Your task to perform on an android device: Open calendar and show me the second week of next month Image 0: 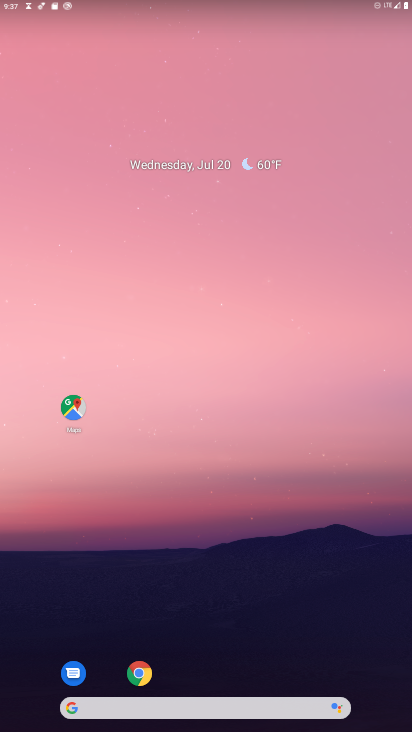
Step 0: drag from (170, 572) to (172, 295)
Your task to perform on an android device: Open calendar and show me the second week of next month Image 1: 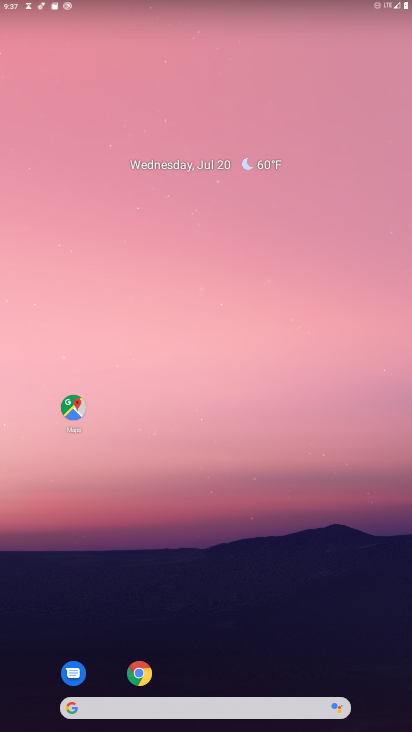
Step 1: drag from (181, 393) to (179, 113)
Your task to perform on an android device: Open calendar and show me the second week of next month Image 2: 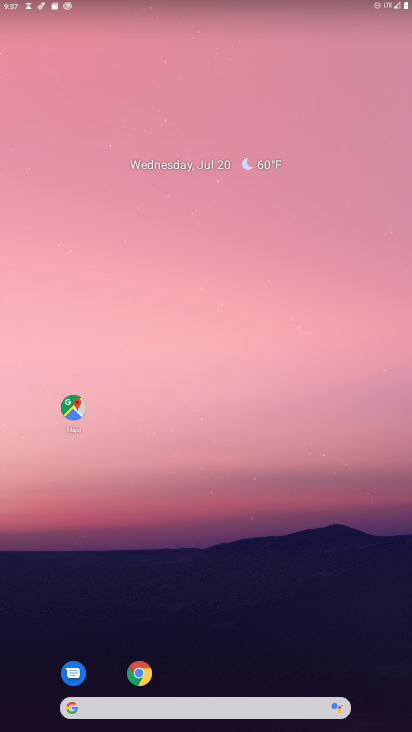
Step 2: drag from (214, 507) to (167, 5)
Your task to perform on an android device: Open calendar and show me the second week of next month Image 3: 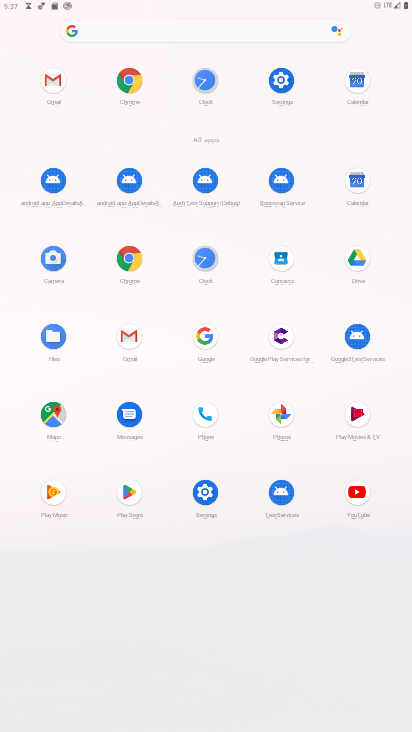
Step 3: click (360, 195)
Your task to perform on an android device: Open calendar and show me the second week of next month Image 4: 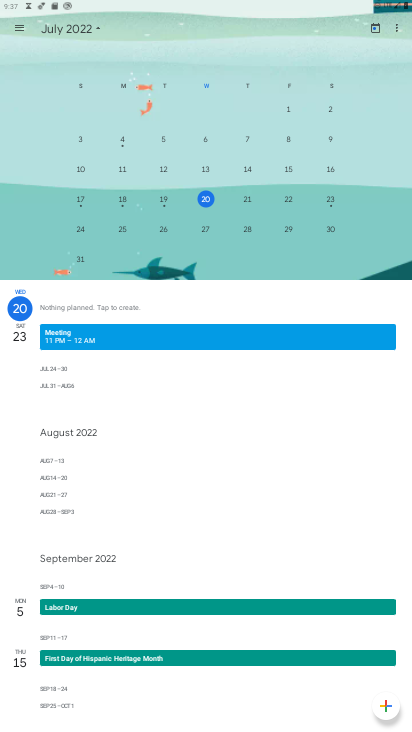
Step 4: click (78, 33)
Your task to perform on an android device: Open calendar and show me the second week of next month Image 5: 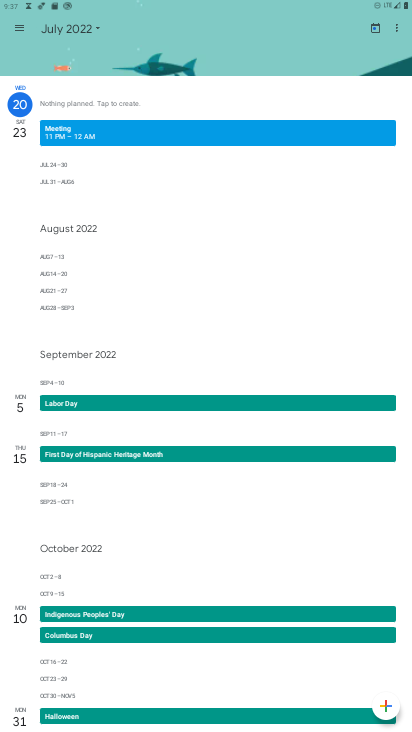
Step 5: click (74, 28)
Your task to perform on an android device: Open calendar and show me the second week of next month Image 6: 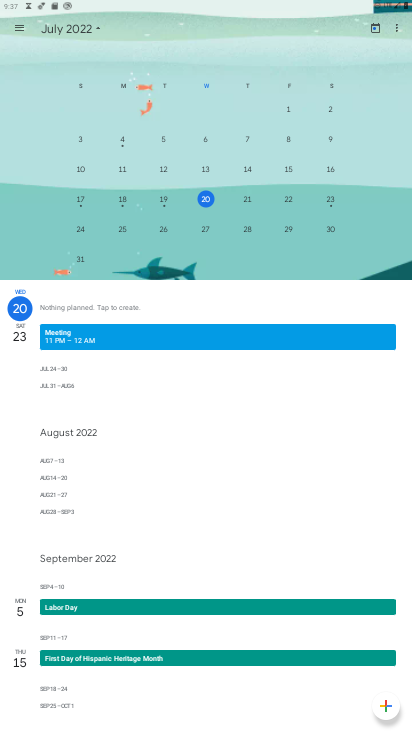
Step 6: drag from (163, 172) to (11, 177)
Your task to perform on an android device: Open calendar and show me the second week of next month Image 7: 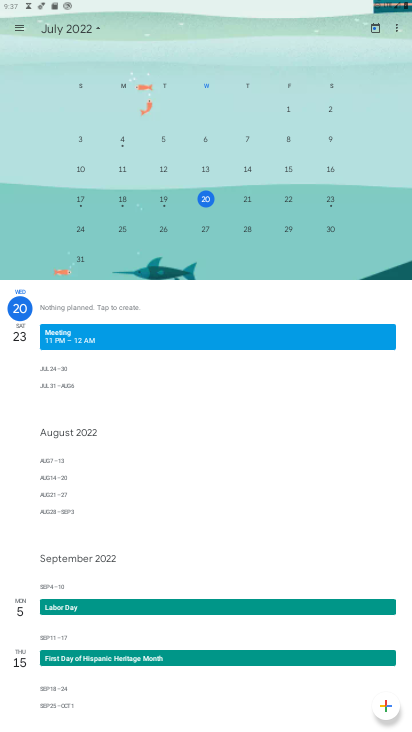
Step 7: drag from (296, 173) to (30, 142)
Your task to perform on an android device: Open calendar and show me the second week of next month Image 8: 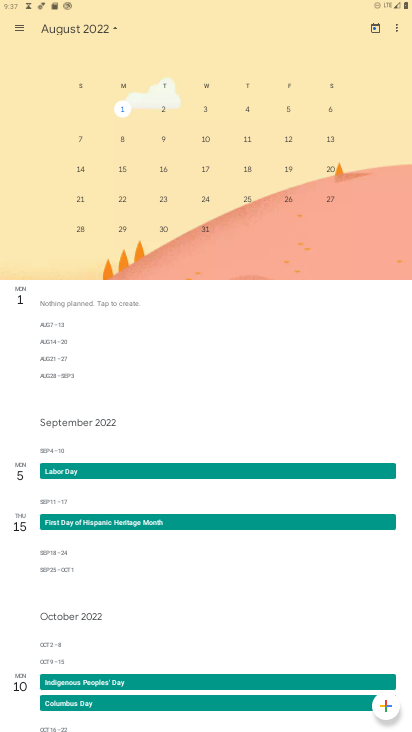
Step 8: click (80, 142)
Your task to perform on an android device: Open calendar and show me the second week of next month Image 9: 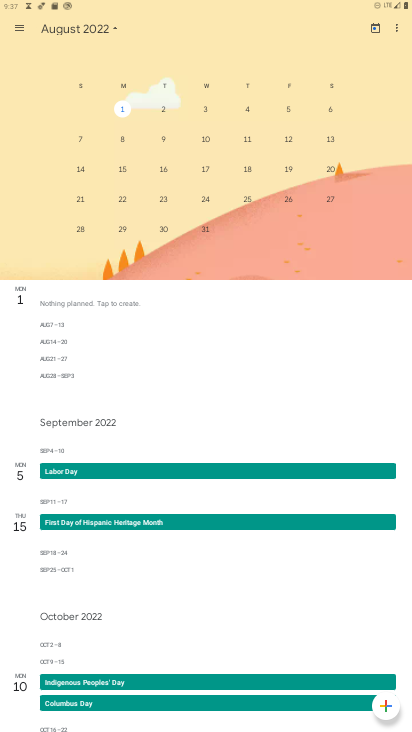
Step 9: click (80, 142)
Your task to perform on an android device: Open calendar and show me the second week of next month Image 10: 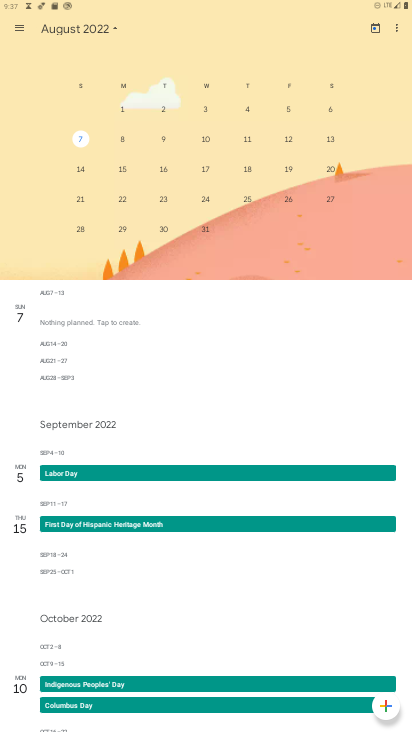
Step 10: click (26, 24)
Your task to perform on an android device: Open calendar and show me the second week of next month Image 11: 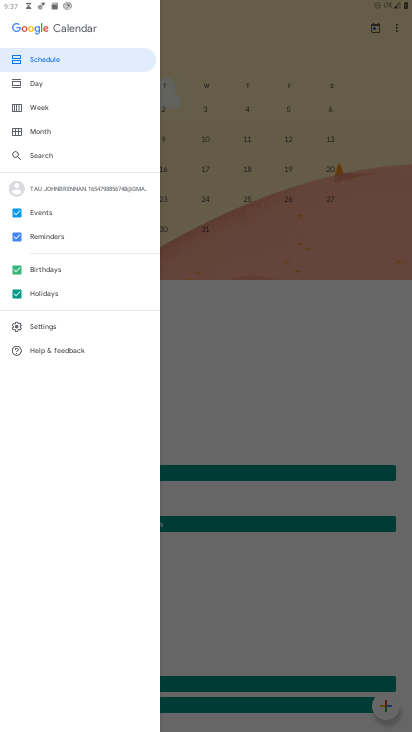
Step 11: click (41, 114)
Your task to perform on an android device: Open calendar and show me the second week of next month Image 12: 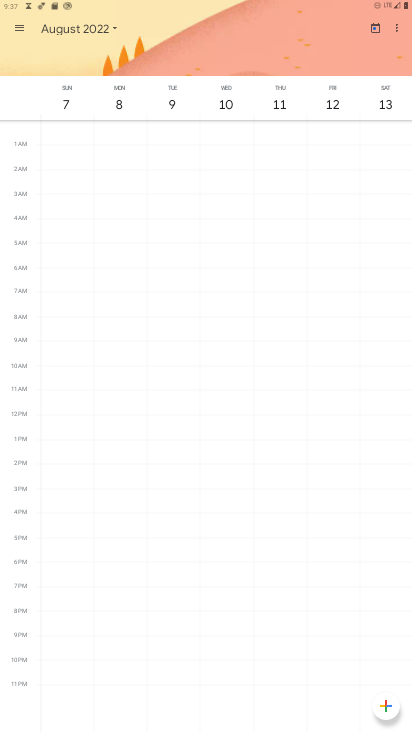
Step 12: click (91, 33)
Your task to perform on an android device: Open calendar and show me the second week of next month Image 13: 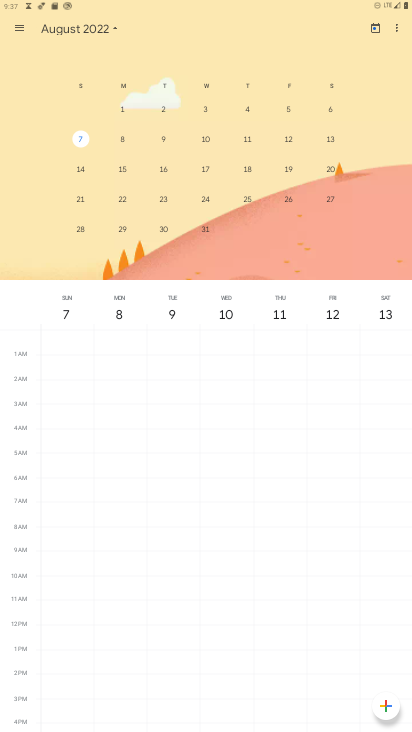
Step 13: task complete